Your task to perform on an android device: turn pop-ups off in chrome Image 0: 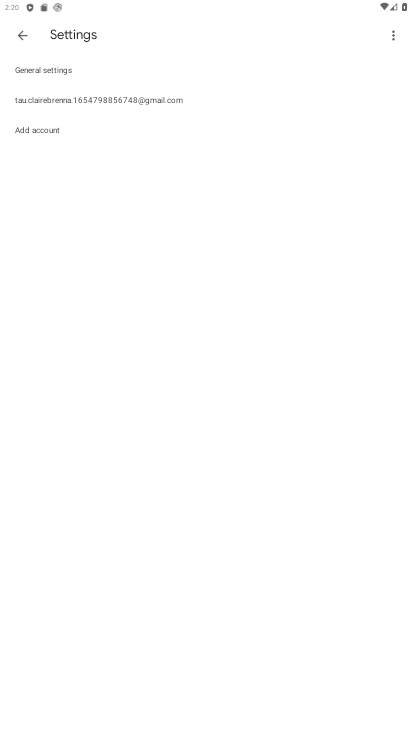
Step 0: press home button
Your task to perform on an android device: turn pop-ups off in chrome Image 1: 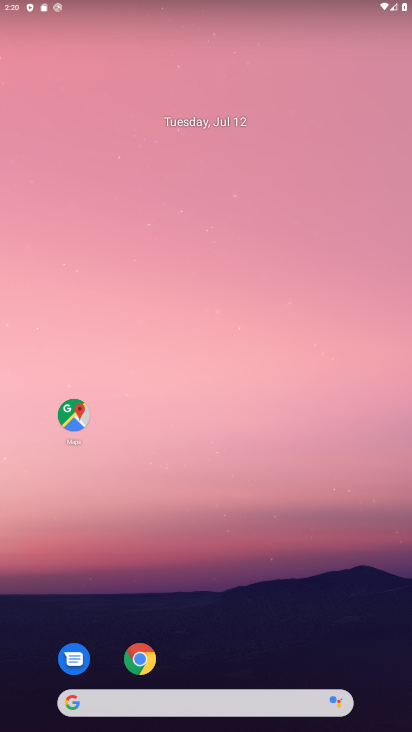
Step 1: click (143, 662)
Your task to perform on an android device: turn pop-ups off in chrome Image 2: 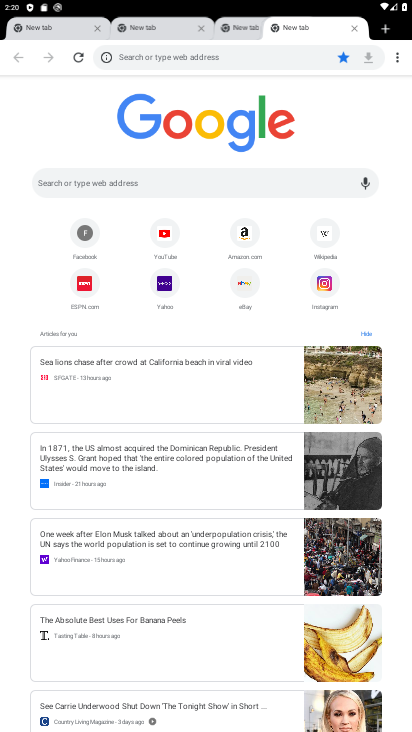
Step 2: click (395, 60)
Your task to perform on an android device: turn pop-ups off in chrome Image 3: 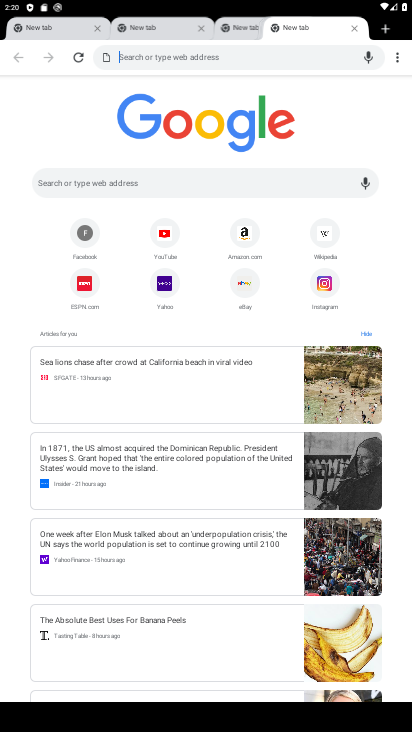
Step 3: click (402, 56)
Your task to perform on an android device: turn pop-ups off in chrome Image 4: 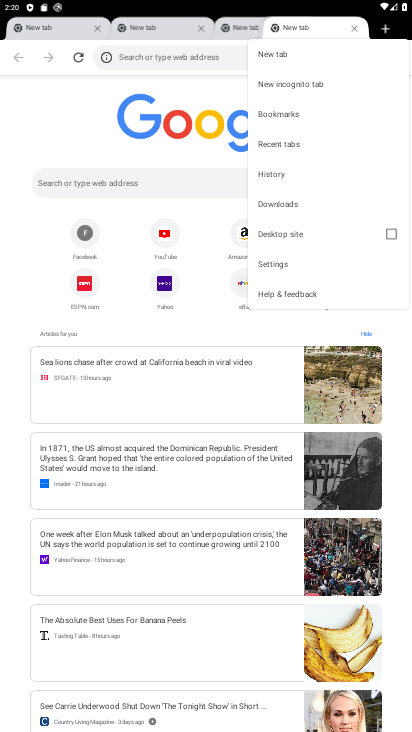
Step 4: click (282, 263)
Your task to perform on an android device: turn pop-ups off in chrome Image 5: 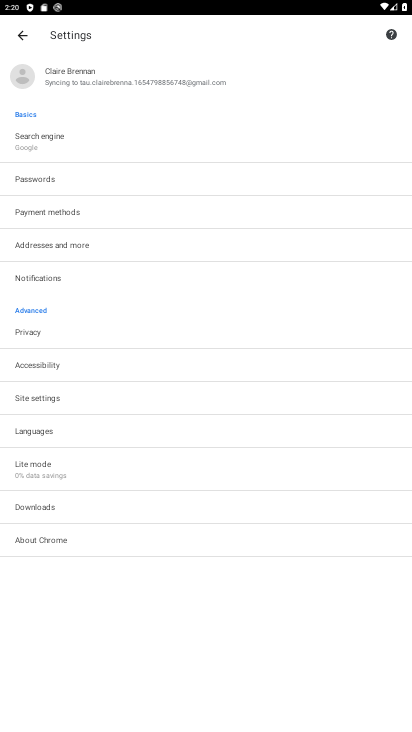
Step 5: click (42, 396)
Your task to perform on an android device: turn pop-ups off in chrome Image 6: 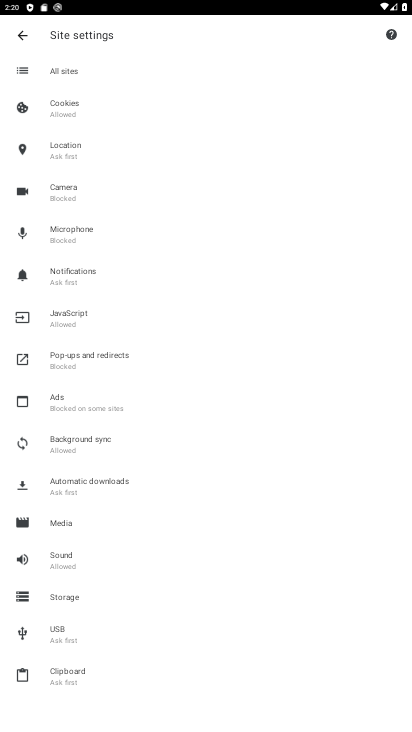
Step 6: click (53, 365)
Your task to perform on an android device: turn pop-ups off in chrome Image 7: 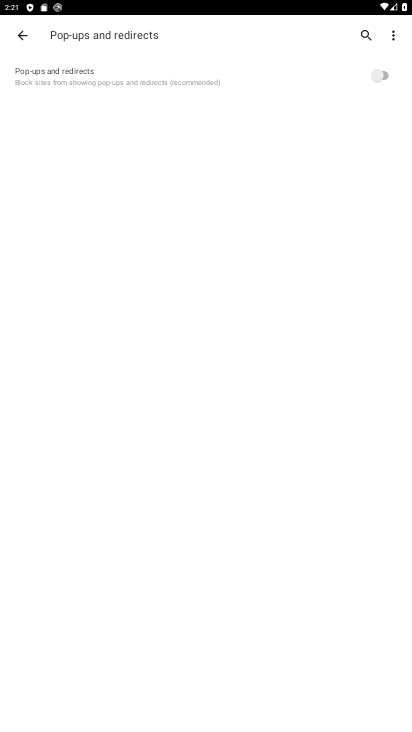
Step 7: task complete